Your task to perform on an android device: toggle show notifications on the lock screen Image 0: 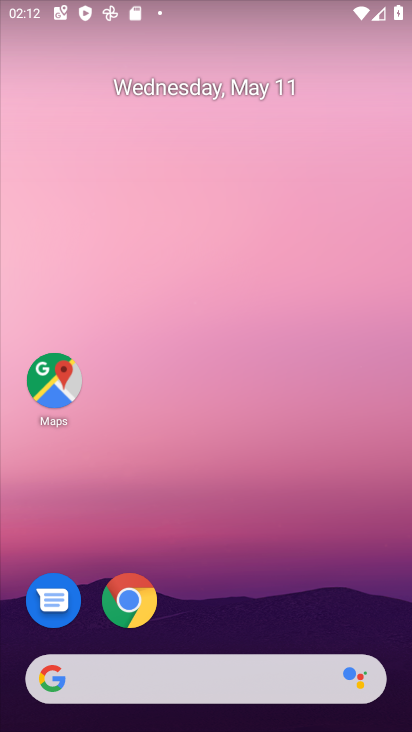
Step 0: drag from (191, 630) to (259, 186)
Your task to perform on an android device: toggle show notifications on the lock screen Image 1: 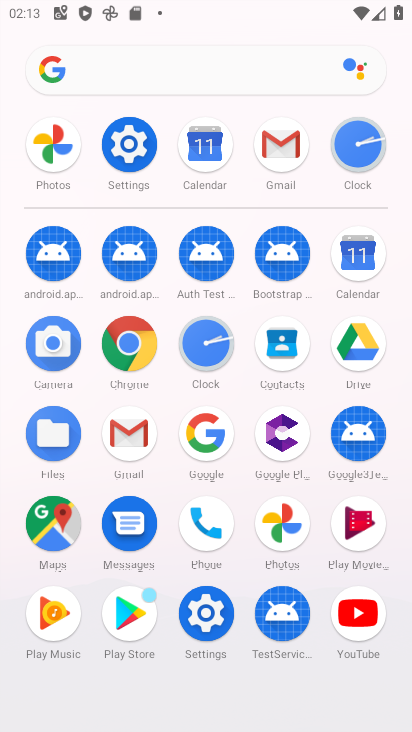
Step 1: click (123, 166)
Your task to perform on an android device: toggle show notifications on the lock screen Image 2: 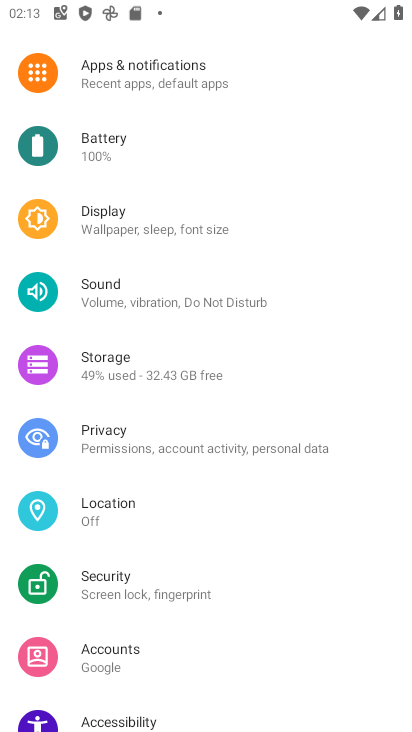
Step 2: click (165, 76)
Your task to perform on an android device: toggle show notifications on the lock screen Image 3: 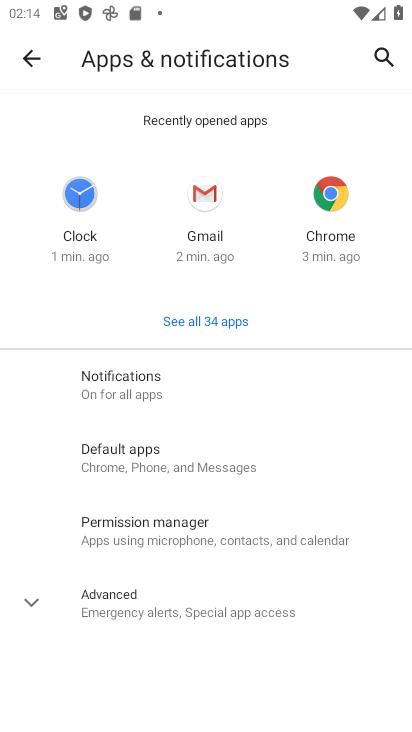
Step 3: click (192, 383)
Your task to perform on an android device: toggle show notifications on the lock screen Image 4: 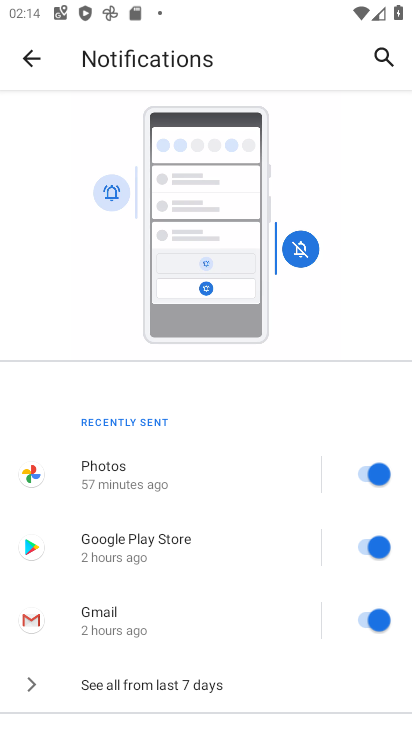
Step 4: drag from (262, 174) to (262, 135)
Your task to perform on an android device: toggle show notifications on the lock screen Image 5: 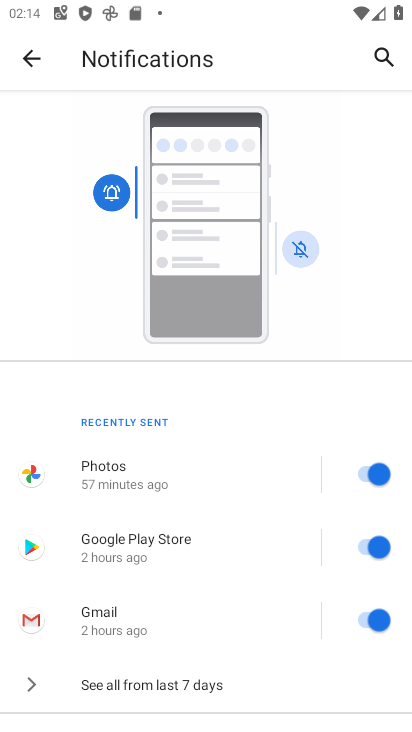
Step 5: drag from (161, 601) to (229, 147)
Your task to perform on an android device: toggle show notifications on the lock screen Image 6: 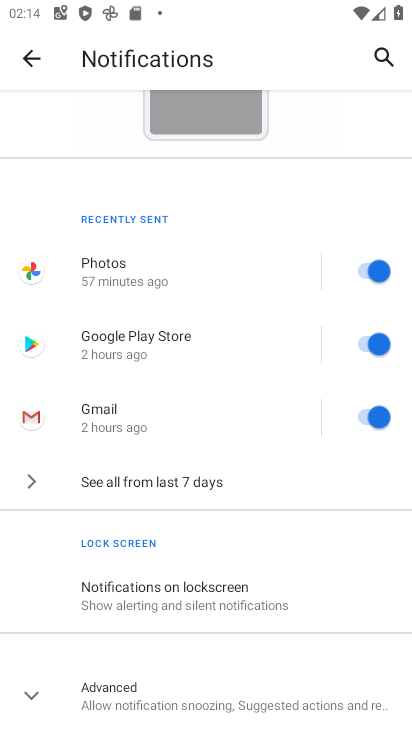
Step 6: click (162, 597)
Your task to perform on an android device: toggle show notifications on the lock screen Image 7: 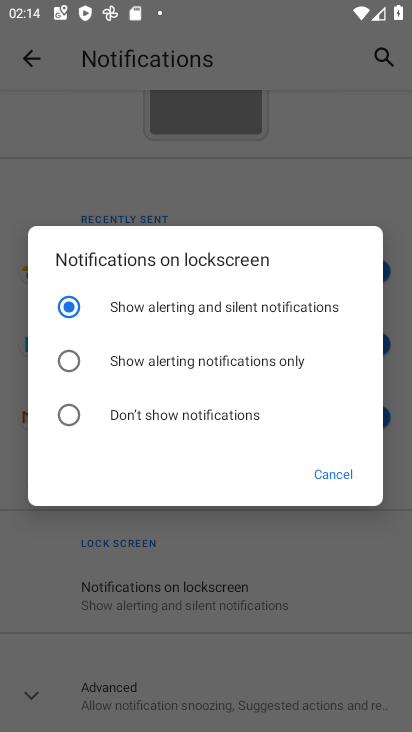
Step 7: click (163, 416)
Your task to perform on an android device: toggle show notifications on the lock screen Image 8: 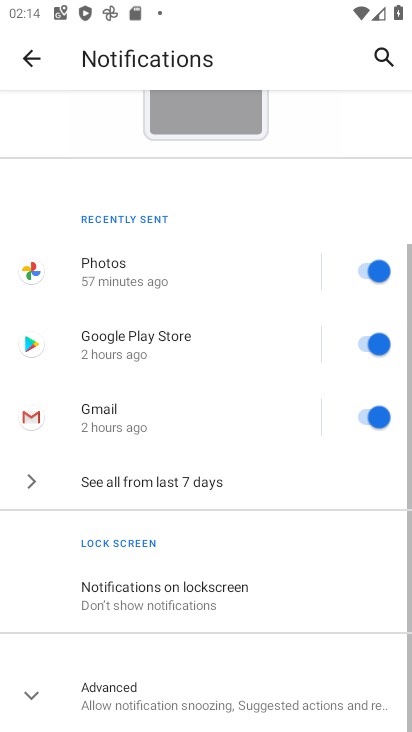
Step 8: task complete